Your task to perform on an android device: Go to Reddit.com Image 0: 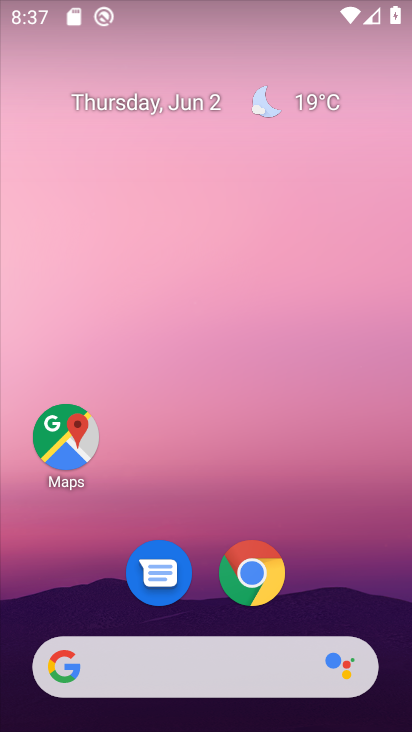
Step 0: click (254, 582)
Your task to perform on an android device: Go to Reddit.com Image 1: 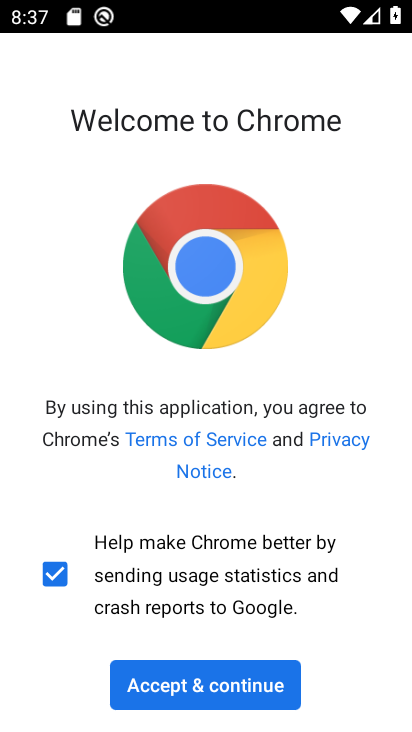
Step 1: click (232, 704)
Your task to perform on an android device: Go to Reddit.com Image 2: 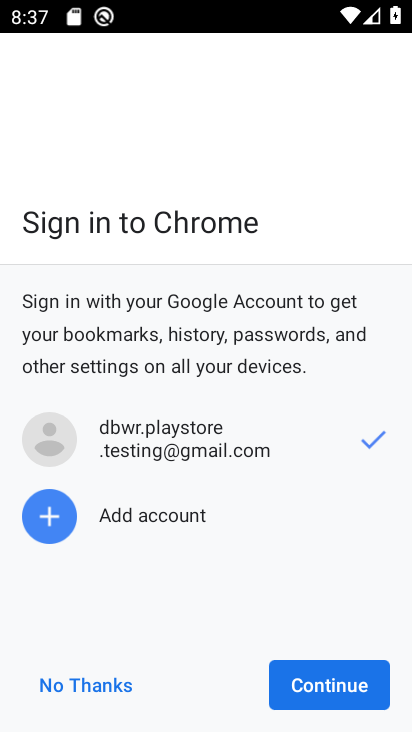
Step 2: click (299, 689)
Your task to perform on an android device: Go to Reddit.com Image 3: 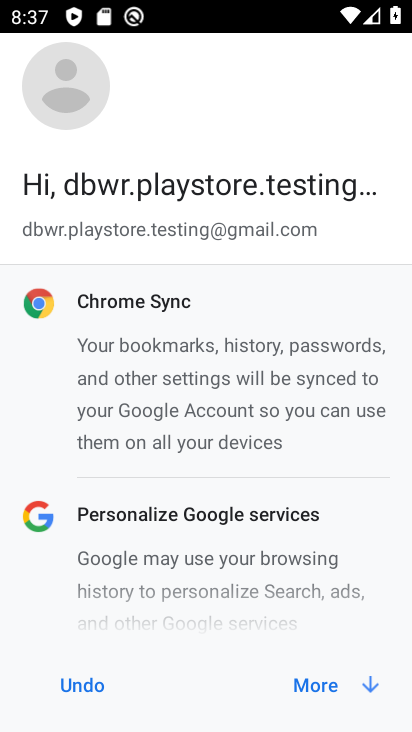
Step 3: click (318, 682)
Your task to perform on an android device: Go to Reddit.com Image 4: 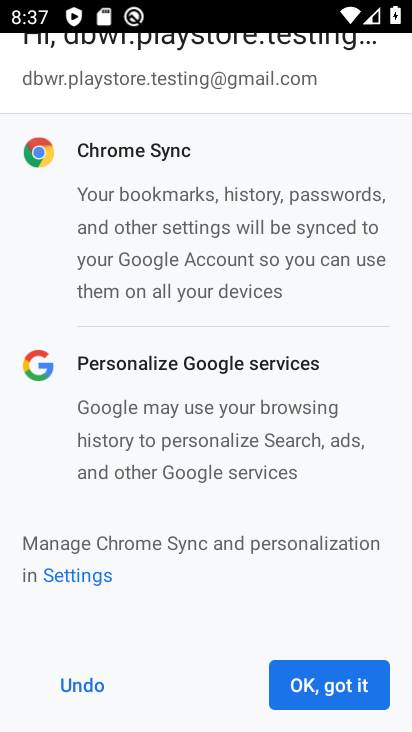
Step 4: click (318, 682)
Your task to perform on an android device: Go to Reddit.com Image 5: 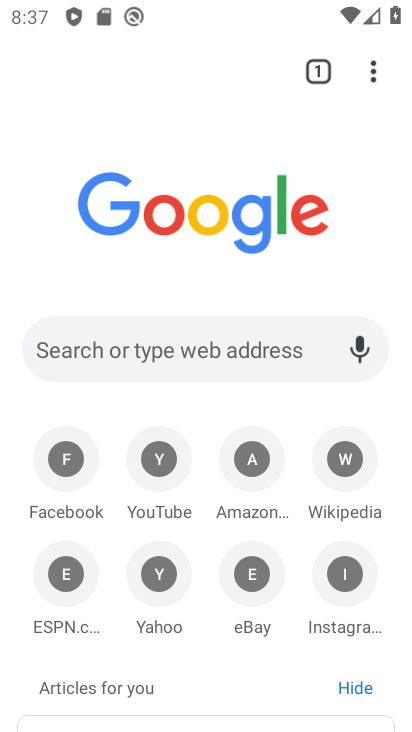
Step 5: click (179, 356)
Your task to perform on an android device: Go to Reddit.com Image 6: 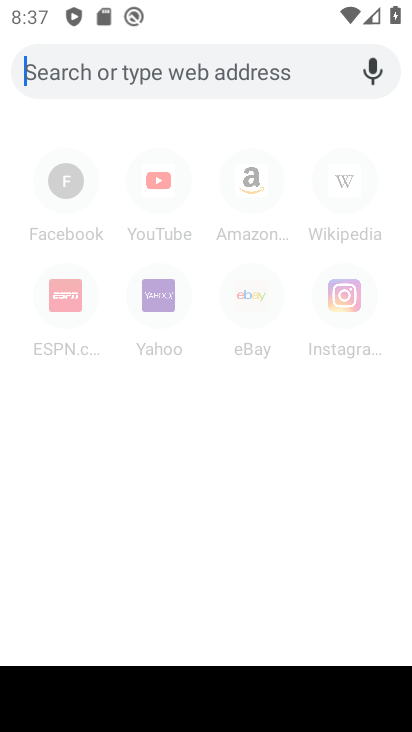
Step 6: type "Reddit.com"
Your task to perform on an android device: Go to Reddit.com Image 7: 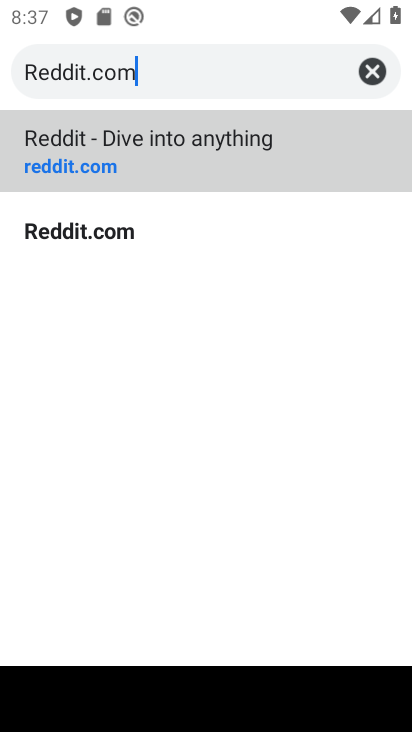
Step 7: click (220, 157)
Your task to perform on an android device: Go to Reddit.com Image 8: 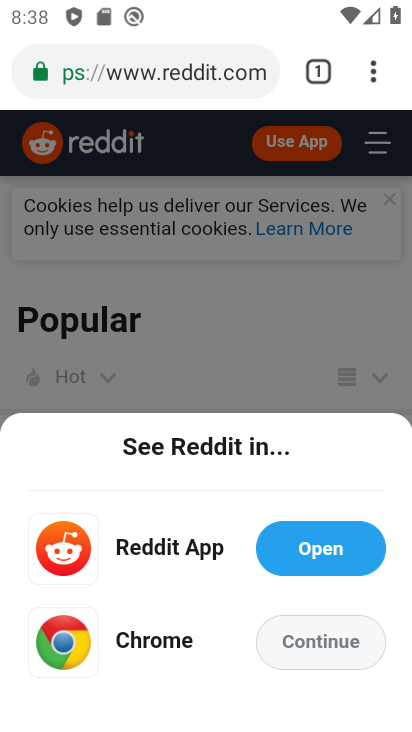
Step 8: task complete